Your task to perform on an android device: Add "sony triple a" to the cart on costco, then select checkout. Image 0: 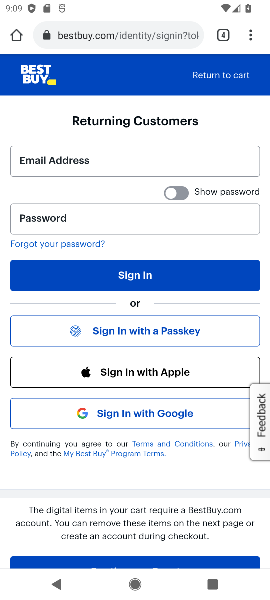
Step 0: press home button
Your task to perform on an android device: Add "sony triple a" to the cart on costco, then select checkout. Image 1: 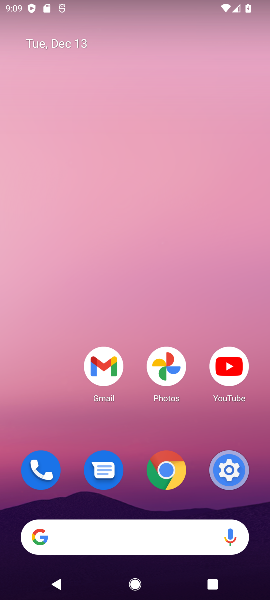
Step 1: click (57, 532)
Your task to perform on an android device: Add "sony triple a" to the cart on costco, then select checkout. Image 2: 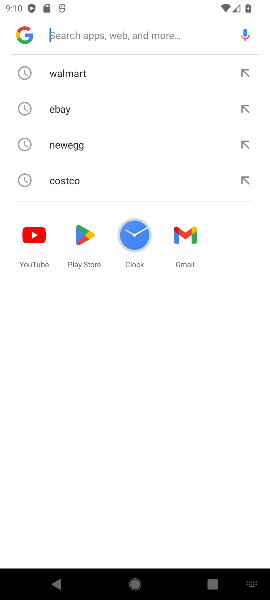
Step 2: type "costco"
Your task to perform on an android device: Add "sony triple a" to the cart on costco, then select checkout. Image 3: 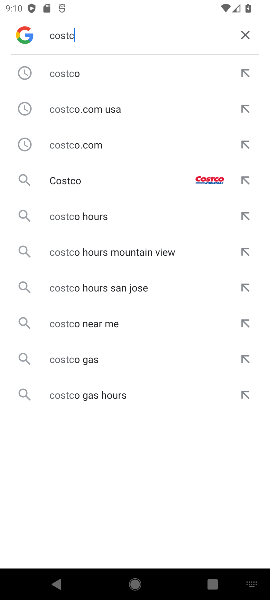
Step 3: press enter
Your task to perform on an android device: Add "sony triple a" to the cart on costco, then select checkout. Image 4: 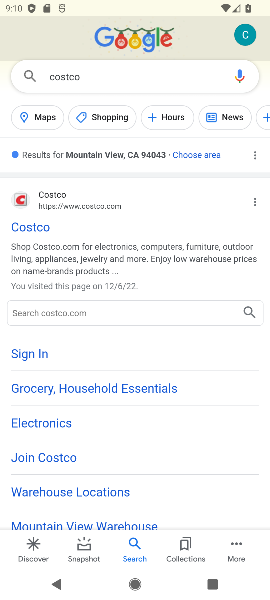
Step 4: click (24, 224)
Your task to perform on an android device: Add "sony triple a" to the cart on costco, then select checkout. Image 5: 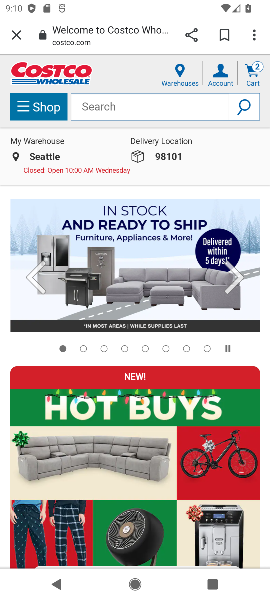
Step 5: click (104, 104)
Your task to perform on an android device: Add "sony triple a" to the cart on costco, then select checkout. Image 6: 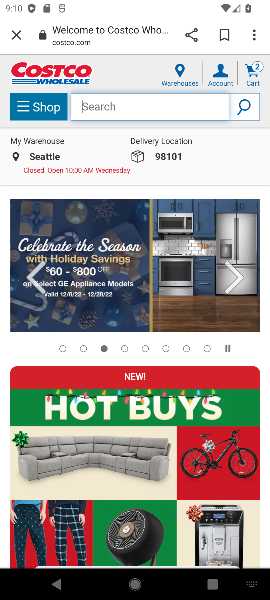
Step 6: type "sony triple a"
Your task to perform on an android device: Add "sony triple a" to the cart on costco, then select checkout. Image 7: 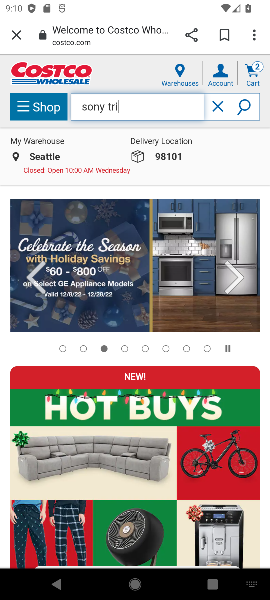
Step 7: press enter
Your task to perform on an android device: Add "sony triple a" to the cart on costco, then select checkout. Image 8: 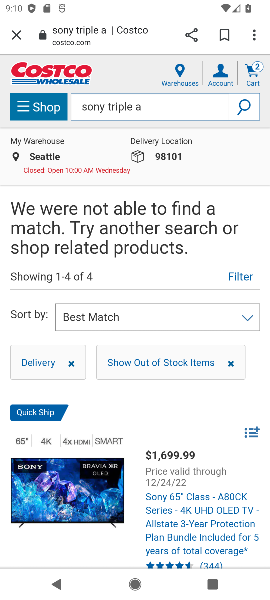
Step 8: task complete